Your task to perform on an android device: Check the weather Image 0: 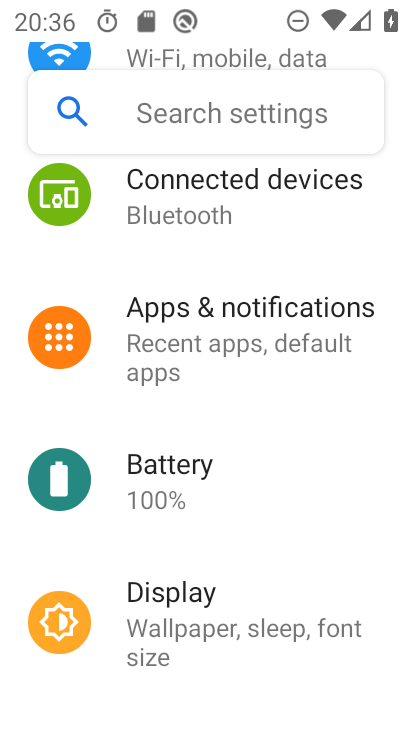
Step 0: drag from (256, 549) to (239, 180)
Your task to perform on an android device: Check the weather Image 1: 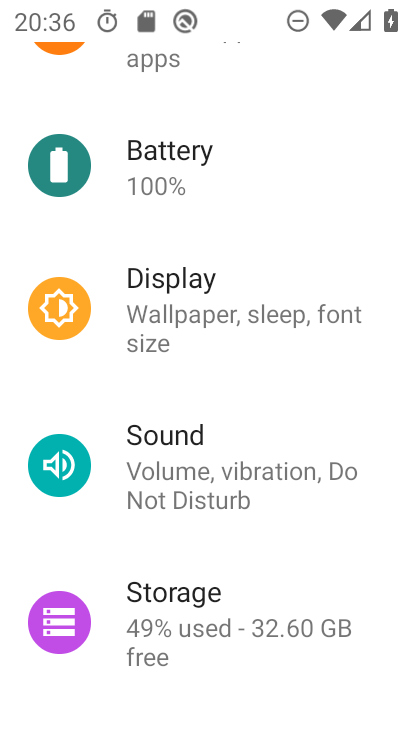
Step 1: press home button
Your task to perform on an android device: Check the weather Image 2: 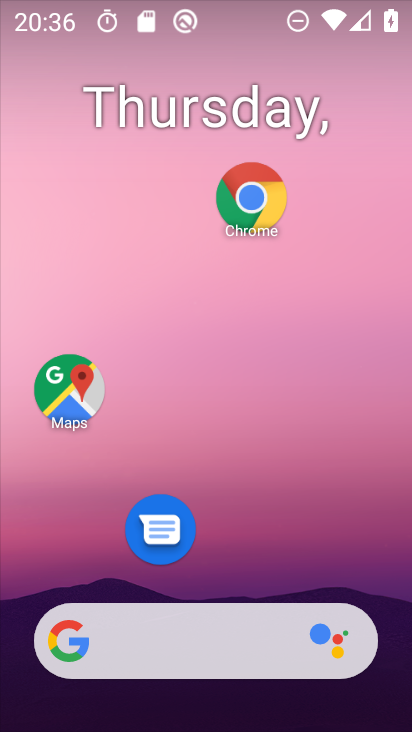
Step 2: click (155, 637)
Your task to perform on an android device: Check the weather Image 3: 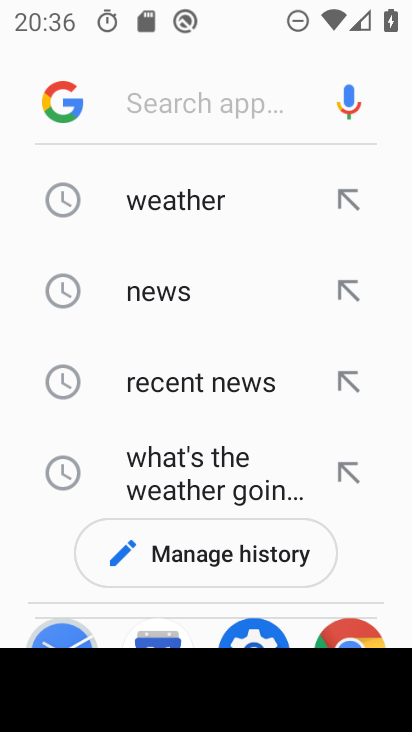
Step 3: click (193, 216)
Your task to perform on an android device: Check the weather Image 4: 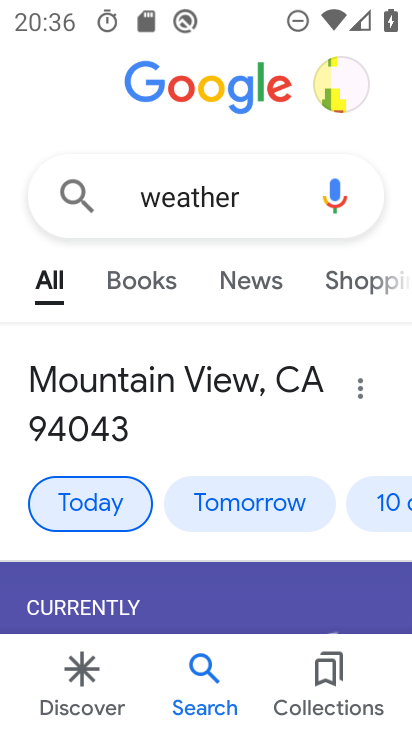
Step 4: task complete